Your task to perform on an android device: add a contact Image 0: 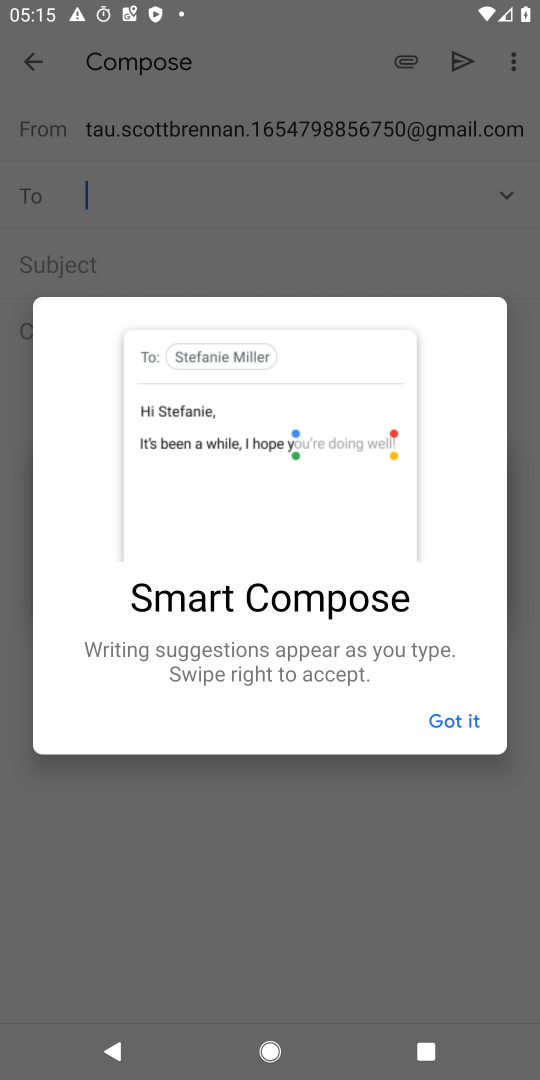
Step 0: press home button
Your task to perform on an android device: add a contact Image 1: 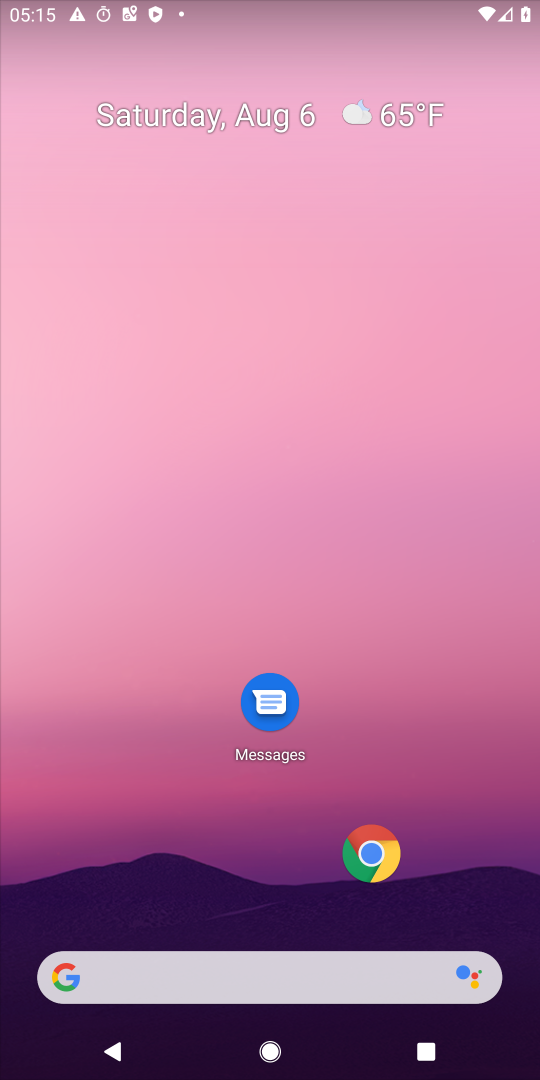
Step 1: drag from (420, 785) to (329, 175)
Your task to perform on an android device: add a contact Image 2: 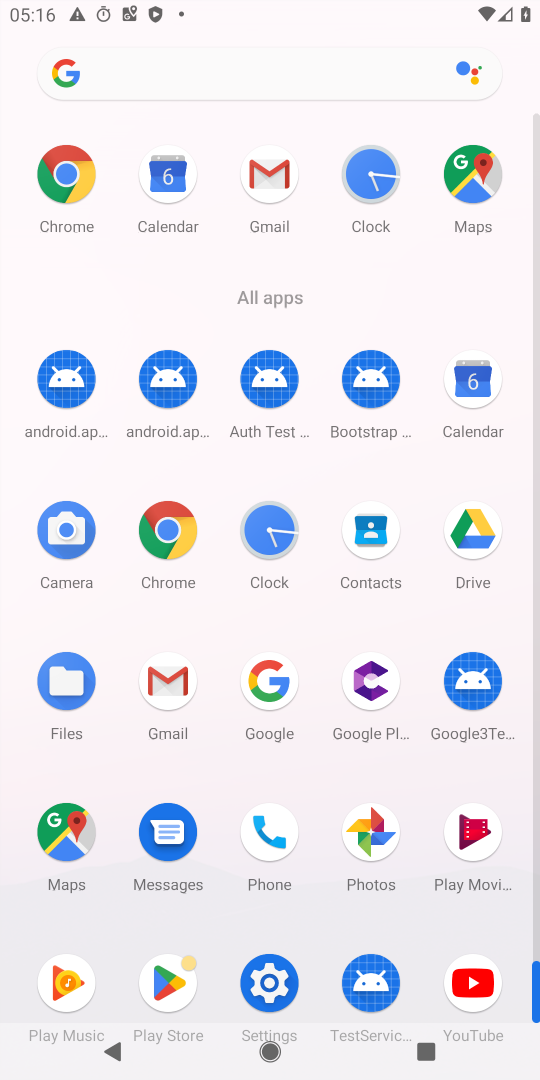
Step 2: click (375, 535)
Your task to perform on an android device: add a contact Image 3: 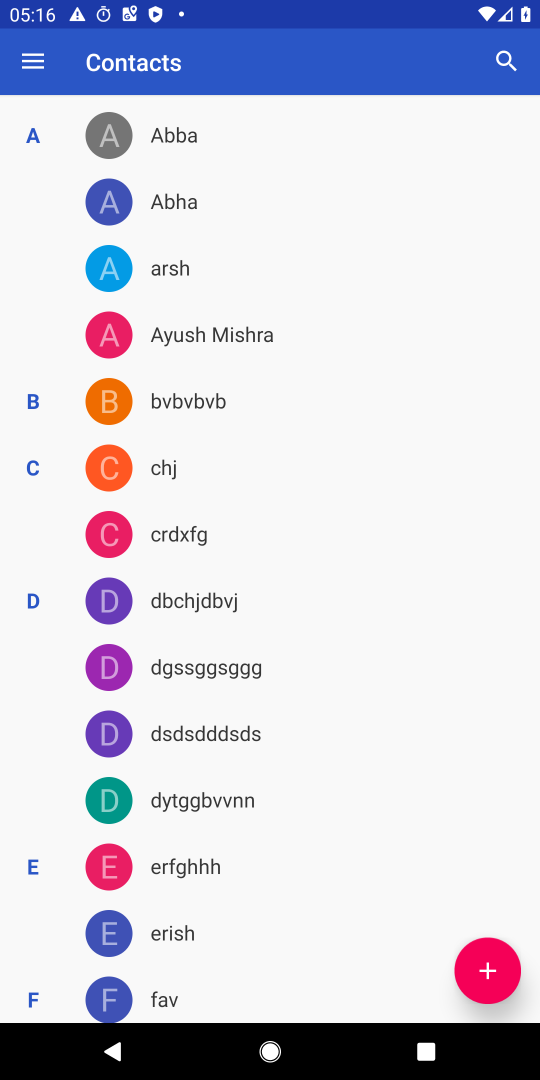
Step 3: click (491, 959)
Your task to perform on an android device: add a contact Image 4: 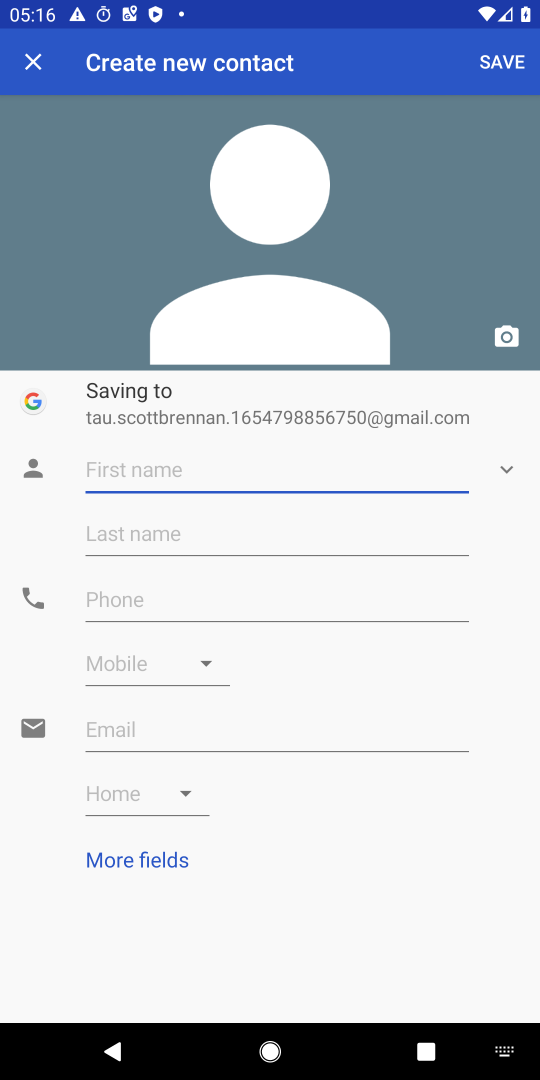
Step 4: type "huiouy"
Your task to perform on an android device: add a contact Image 5: 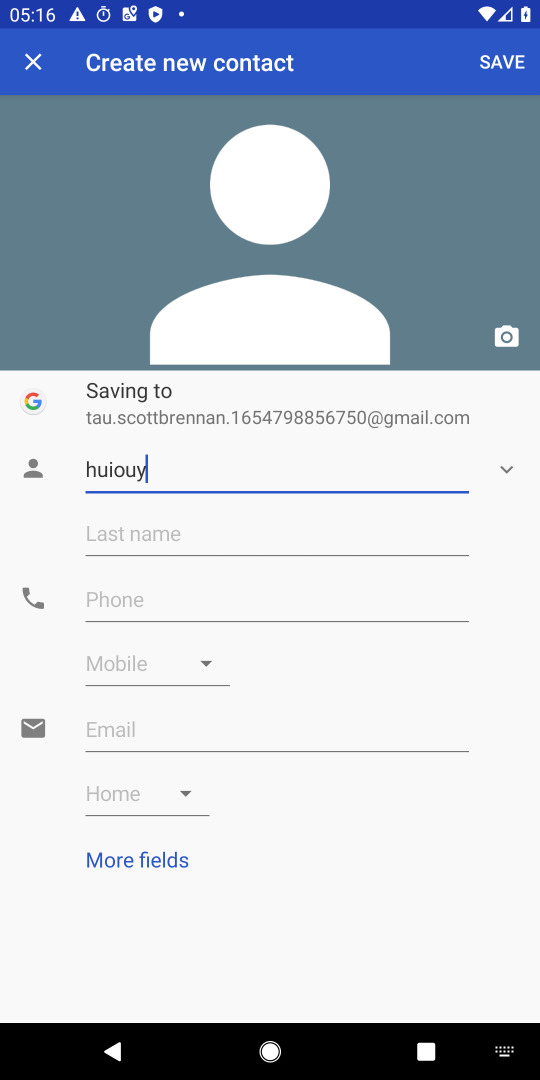
Step 5: click (503, 51)
Your task to perform on an android device: add a contact Image 6: 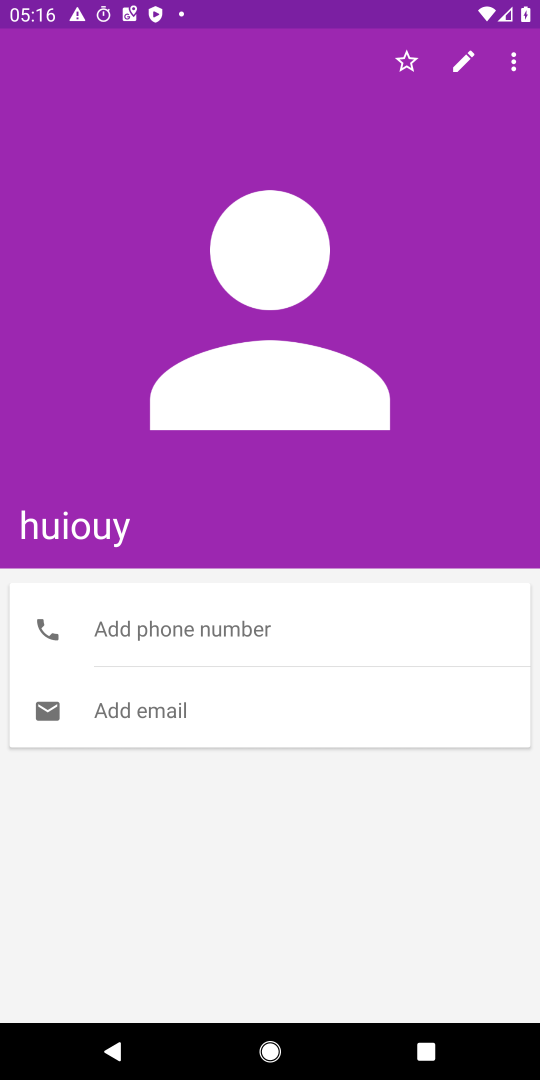
Step 6: task complete